Your task to perform on an android device: Go to settings Image 0: 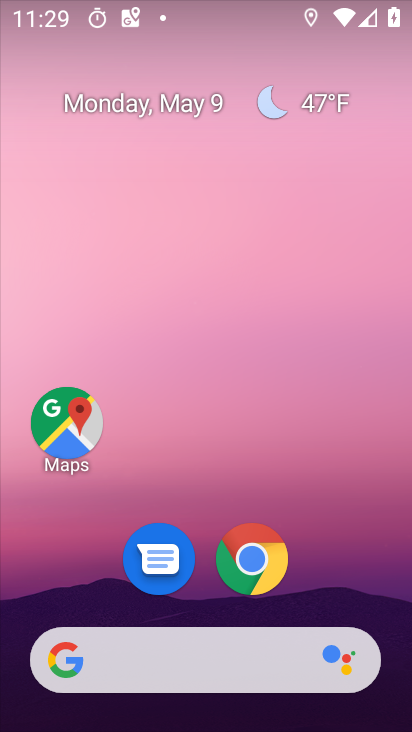
Step 0: drag from (357, 572) to (330, 15)
Your task to perform on an android device: Go to settings Image 1: 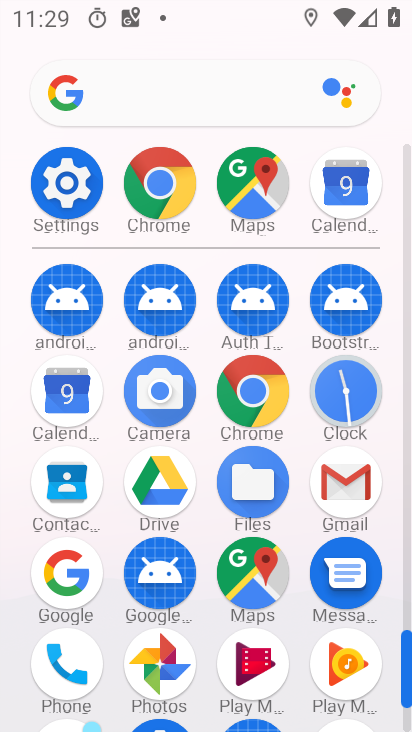
Step 1: click (94, 162)
Your task to perform on an android device: Go to settings Image 2: 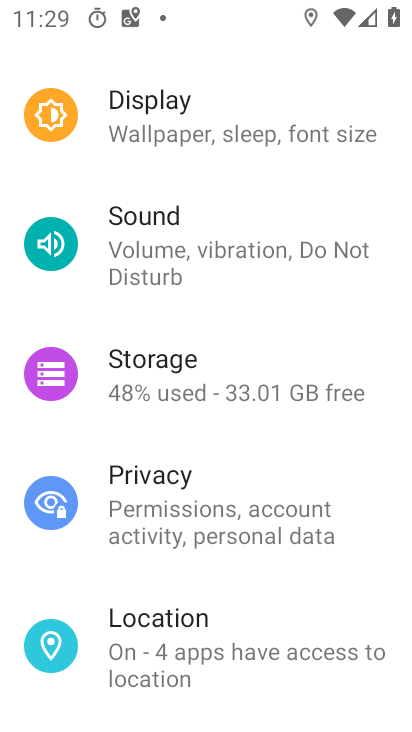
Step 2: task complete